Your task to perform on an android device: turn vacation reply on in the gmail app Image 0: 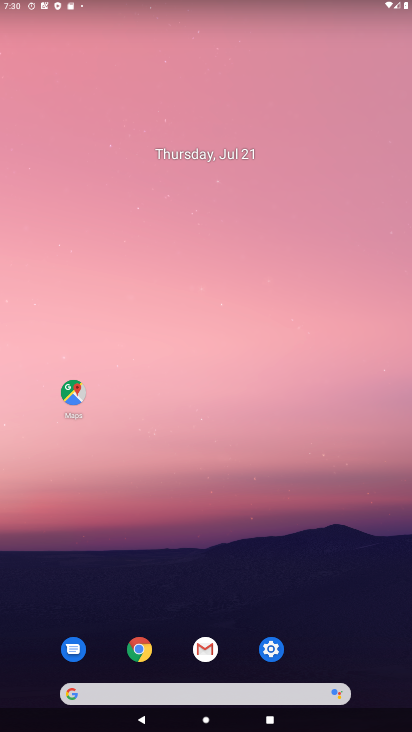
Step 0: click (195, 643)
Your task to perform on an android device: turn vacation reply on in the gmail app Image 1: 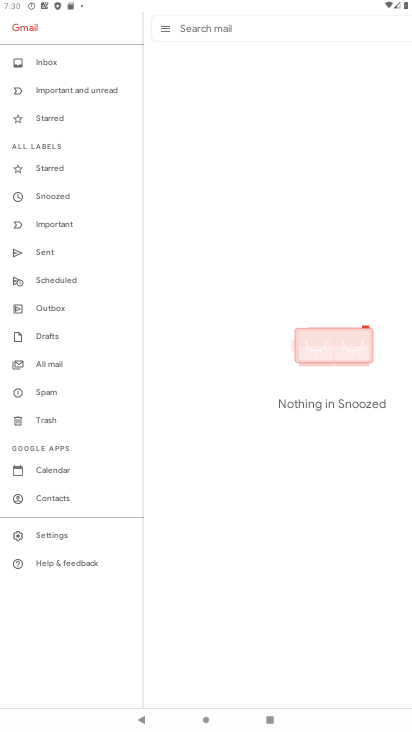
Step 1: click (69, 543)
Your task to perform on an android device: turn vacation reply on in the gmail app Image 2: 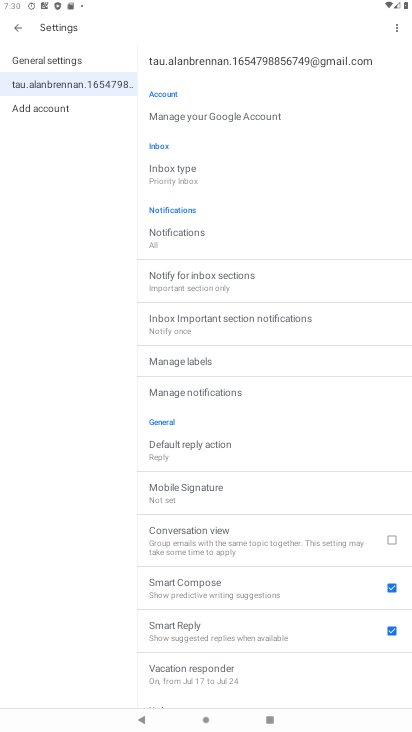
Step 2: click (228, 665)
Your task to perform on an android device: turn vacation reply on in the gmail app Image 3: 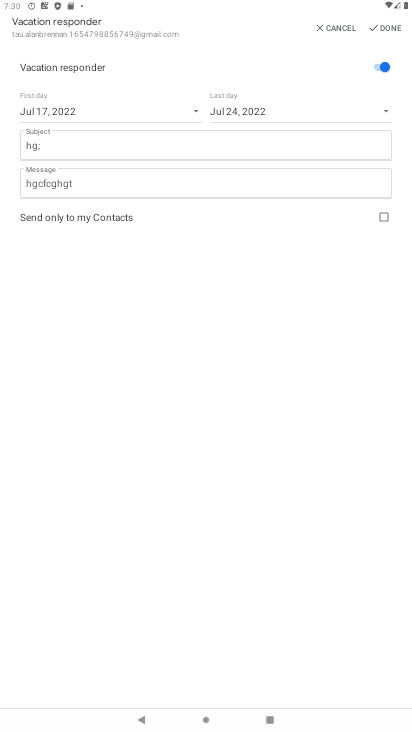
Step 3: task complete